Your task to perform on an android device: open a bookmark in the chrome app Image 0: 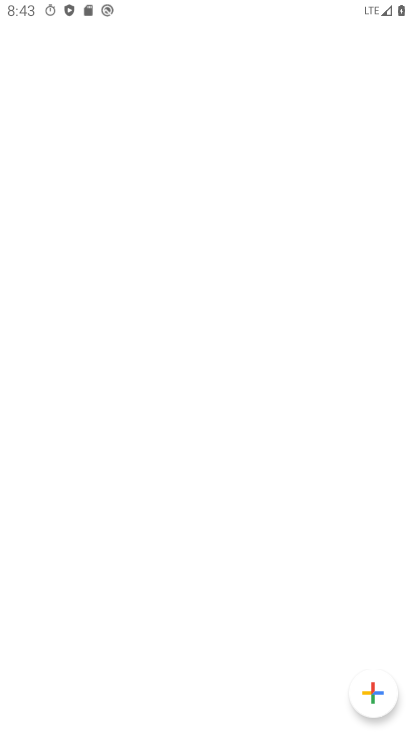
Step 0: click (13, 690)
Your task to perform on an android device: open a bookmark in the chrome app Image 1: 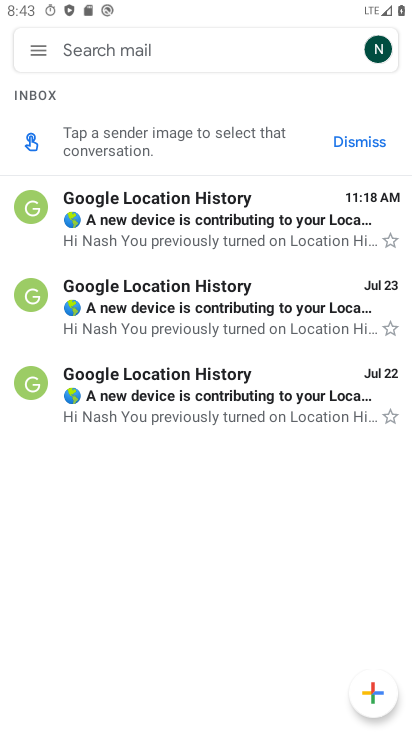
Step 1: press home button
Your task to perform on an android device: open a bookmark in the chrome app Image 2: 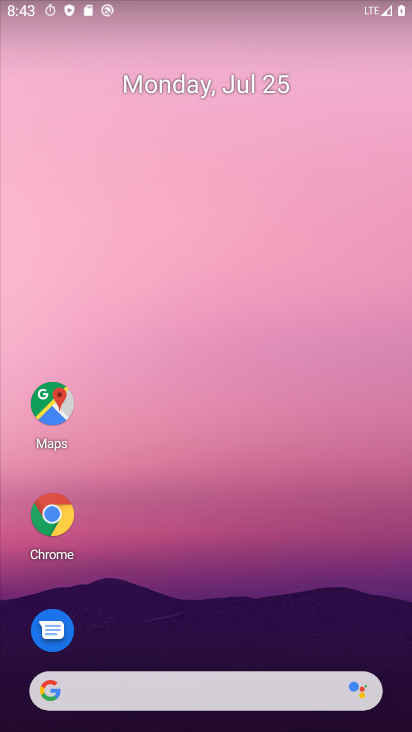
Step 2: click (48, 514)
Your task to perform on an android device: open a bookmark in the chrome app Image 3: 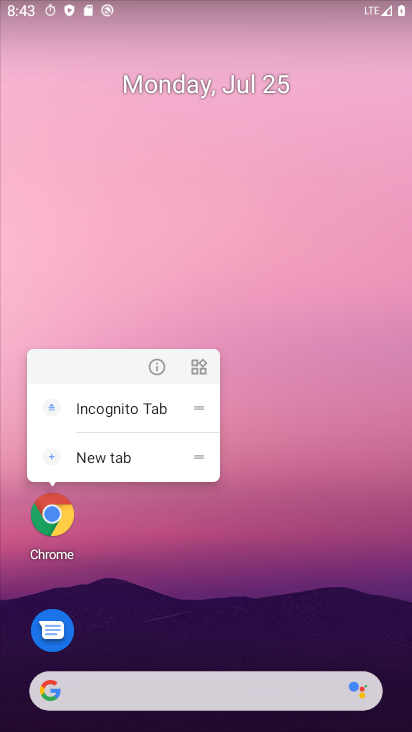
Step 3: click (50, 503)
Your task to perform on an android device: open a bookmark in the chrome app Image 4: 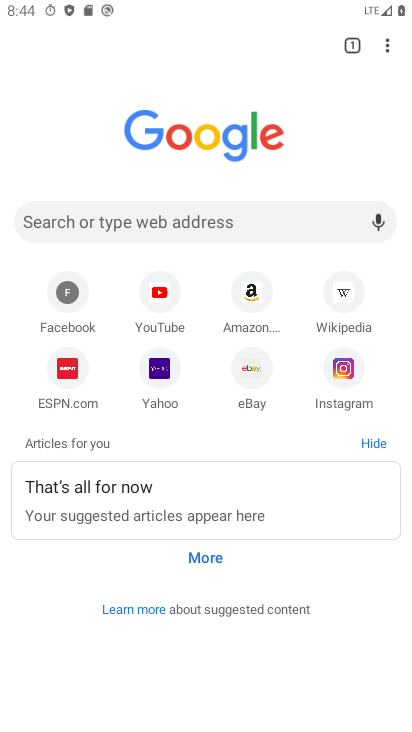
Step 4: click (383, 49)
Your task to perform on an android device: open a bookmark in the chrome app Image 5: 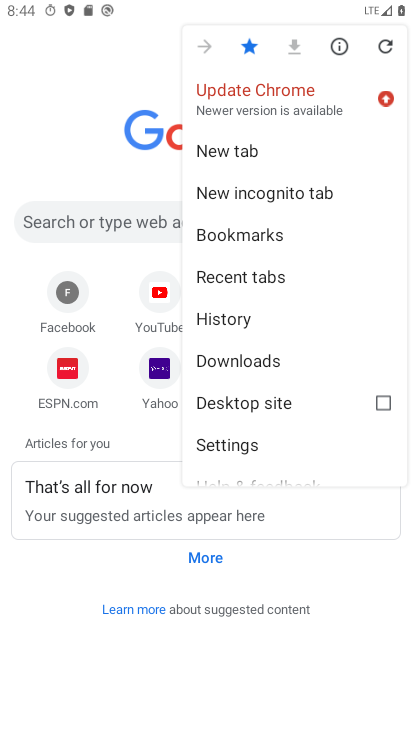
Step 5: click (219, 228)
Your task to perform on an android device: open a bookmark in the chrome app Image 6: 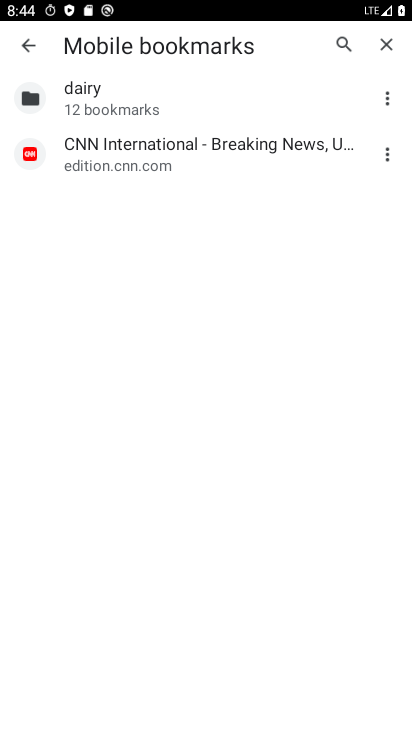
Step 6: task complete